Your task to perform on an android device: Open the phone app and click the voicemail tab. Image 0: 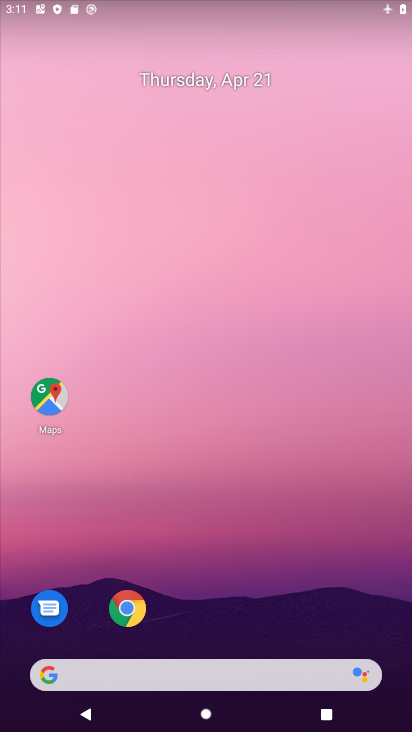
Step 0: drag from (155, 409) to (122, 48)
Your task to perform on an android device: Open the phone app and click the voicemail tab. Image 1: 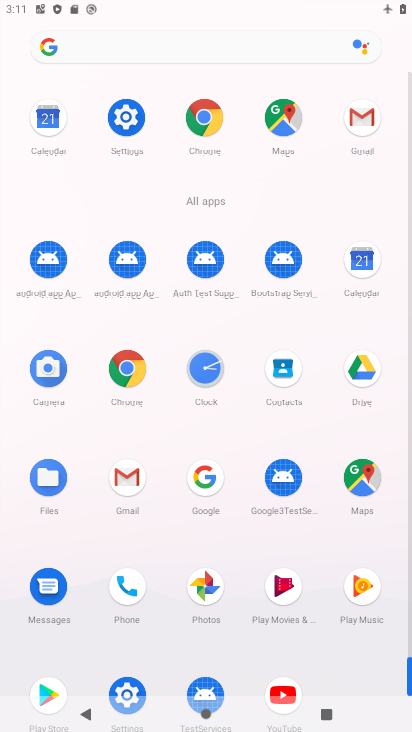
Step 1: click (121, 580)
Your task to perform on an android device: Open the phone app and click the voicemail tab. Image 2: 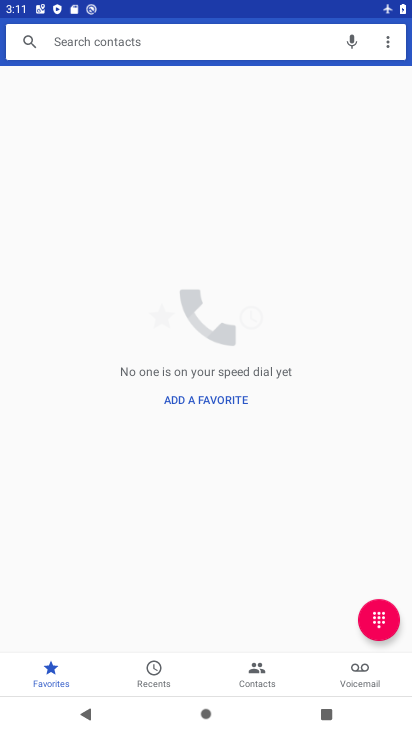
Step 2: click (364, 678)
Your task to perform on an android device: Open the phone app and click the voicemail tab. Image 3: 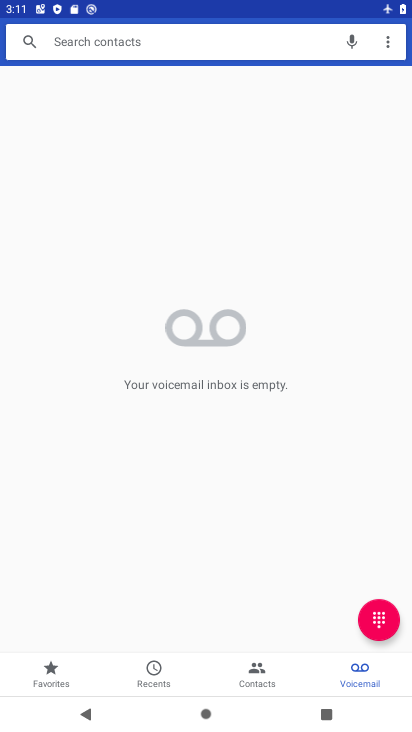
Step 3: task complete